Your task to perform on an android device: Open privacy settings Image 0: 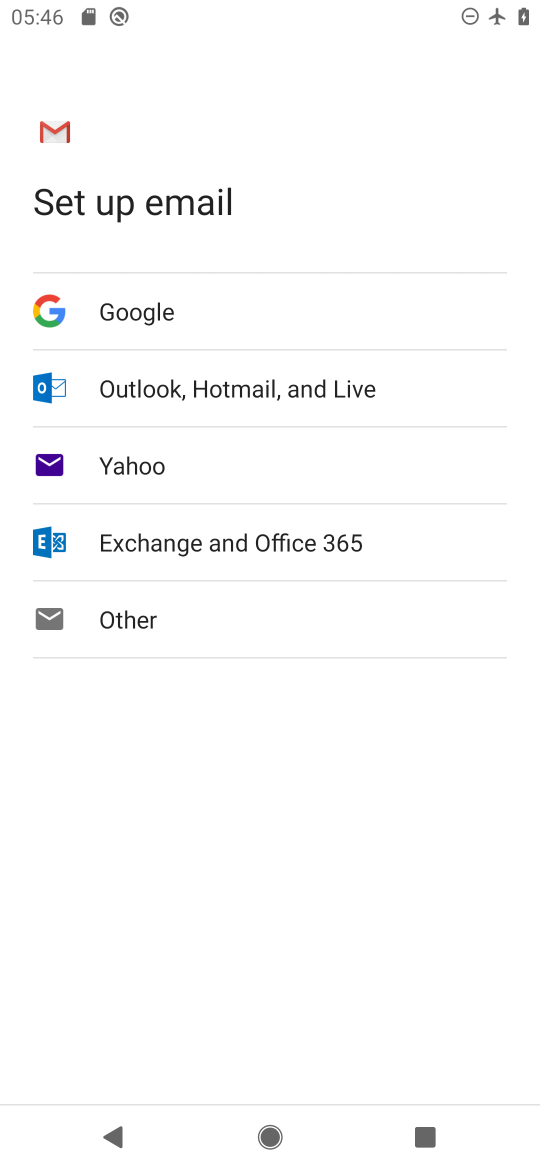
Step 0: press back button
Your task to perform on an android device: Open privacy settings Image 1: 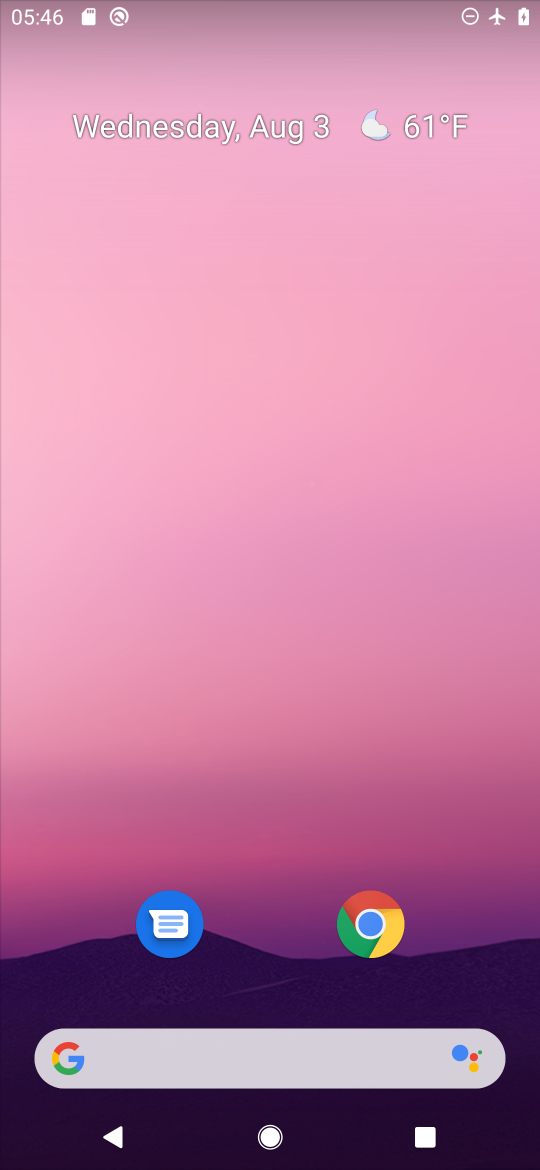
Step 1: drag from (235, 966) to (239, 284)
Your task to perform on an android device: Open privacy settings Image 2: 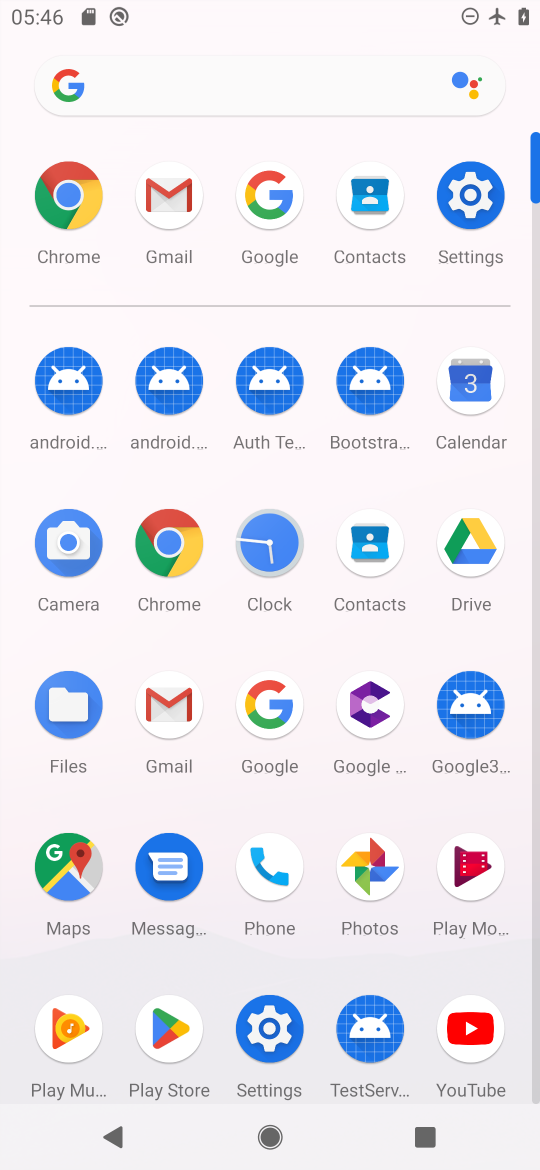
Step 2: click (483, 211)
Your task to perform on an android device: Open privacy settings Image 3: 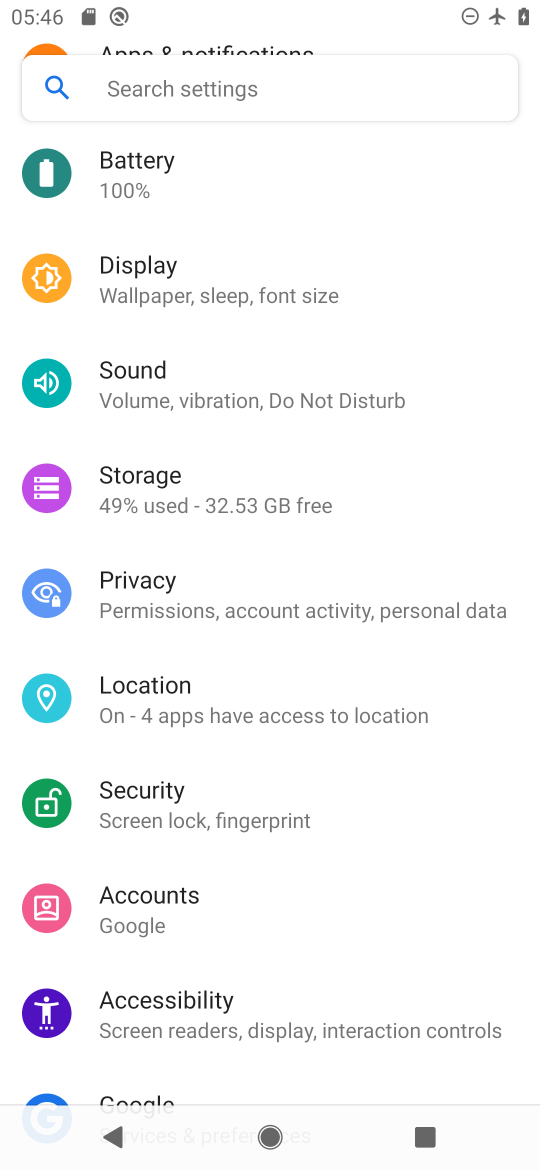
Step 3: task complete